Your task to perform on an android device: manage bookmarks in the chrome app Image 0: 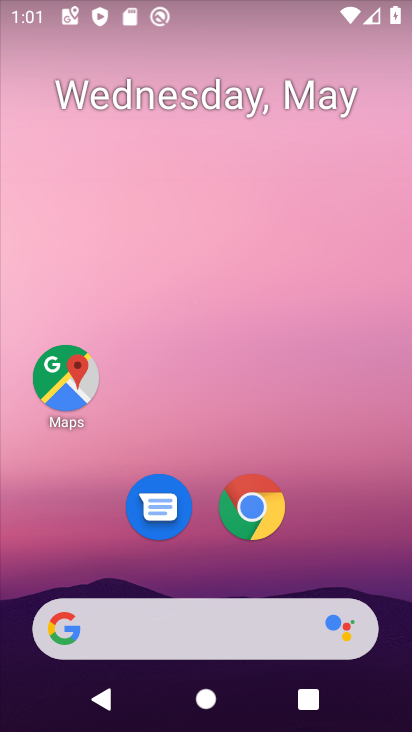
Step 0: click (252, 486)
Your task to perform on an android device: manage bookmarks in the chrome app Image 1: 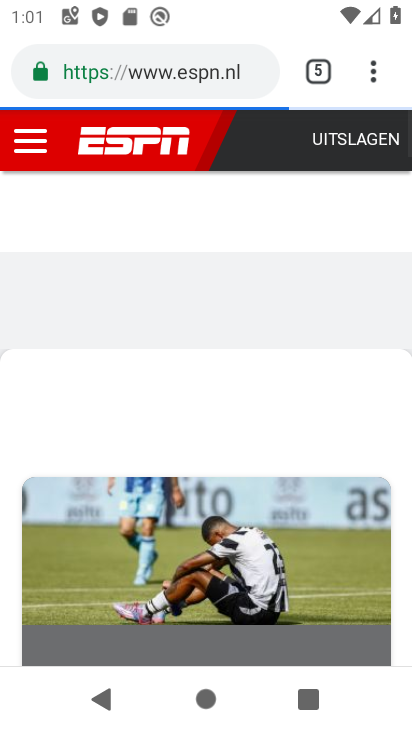
Step 1: click (367, 72)
Your task to perform on an android device: manage bookmarks in the chrome app Image 2: 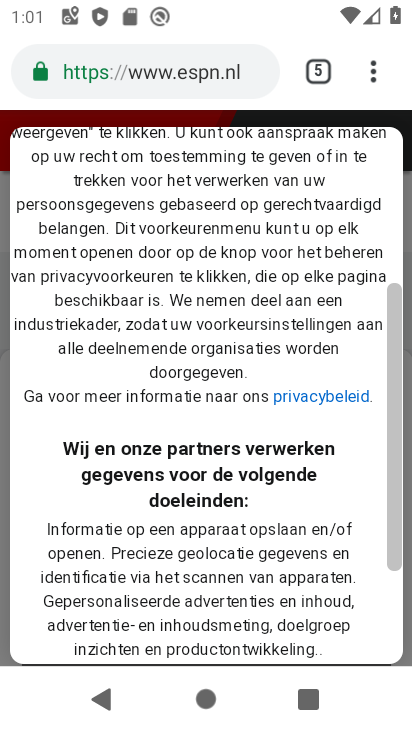
Step 2: click (368, 78)
Your task to perform on an android device: manage bookmarks in the chrome app Image 3: 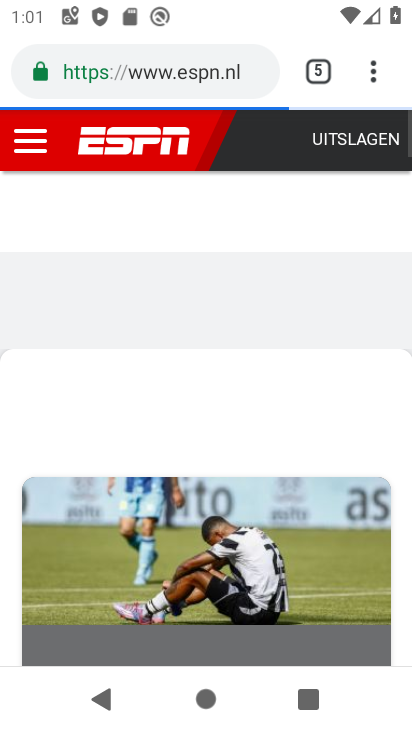
Step 3: click (365, 63)
Your task to perform on an android device: manage bookmarks in the chrome app Image 4: 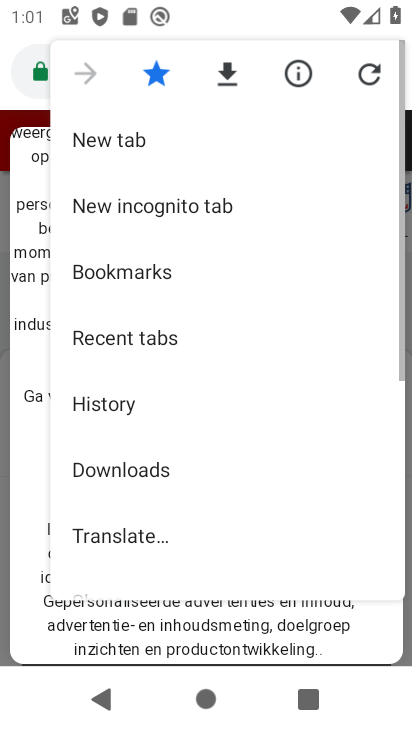
Step 4: drag from (229, 437) to (229, 312)
Your task to perform on an android device: manage bookmarks in the chrome app Image 5: 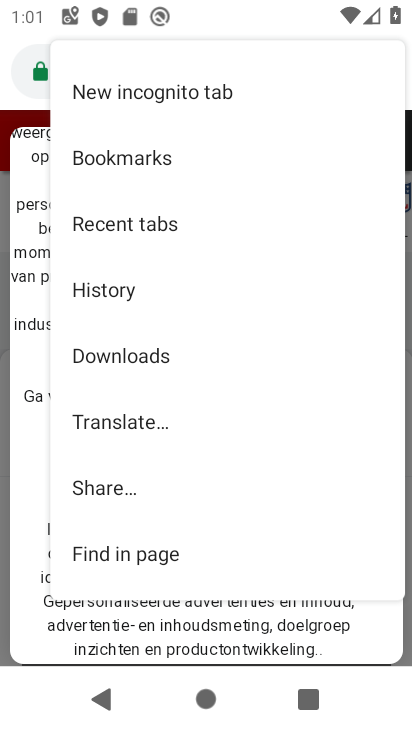
Step 5: click (143, 134)
Your task to perform on an android device: manage bookmarks in the chrome app Image 6: 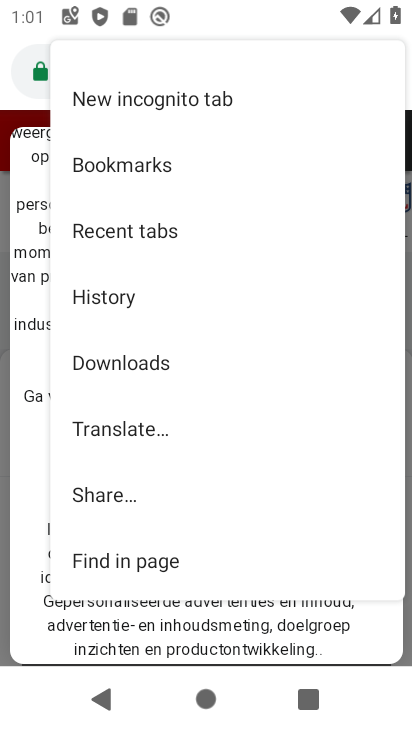
Step 6: click (139, 156)
Your task to perform on an android device: manage bookmarks in the chrome app Image 7: 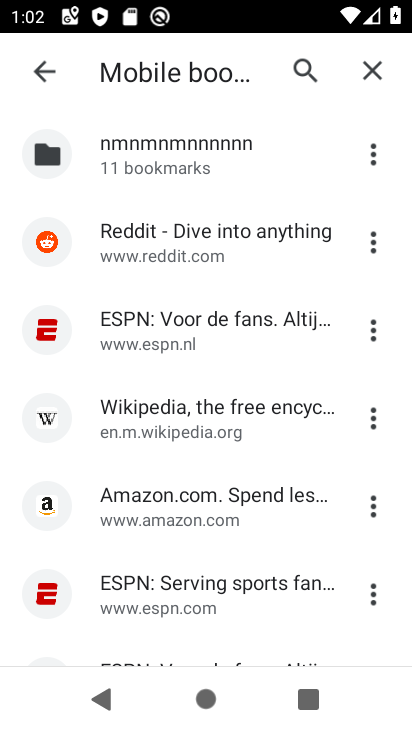
Step 7: click (182, 241)
Your task to perform on an android device: manage bookmarks in the chrome app Image 8: 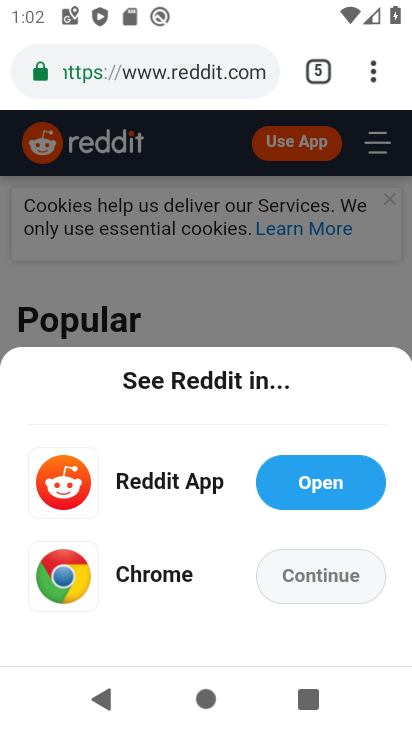
Step 8: click (363, 55)
Your task to perform on an android device: manage bookmarks in the chrome app Image 9: 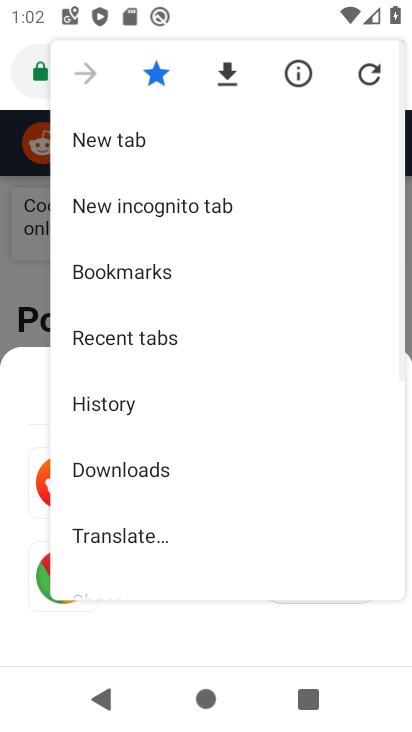
Step 9: click (150, 263)
Your task to perform on an android device: manage bookmarks in the chrome app Image 10: 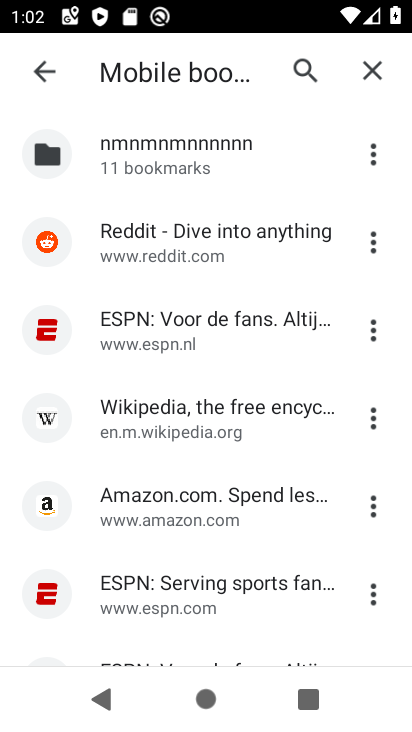
Step 10: click (187, 330)
Your task to perform on an android device: manage bookmarks in the chrome app Image 11: 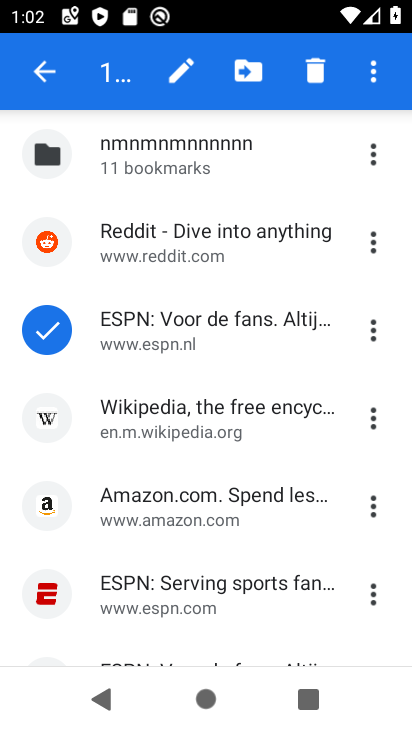
Step 11: click (251, 58)
Your task to perform on an android device: manage bookmarks in the chrome app Image 12: 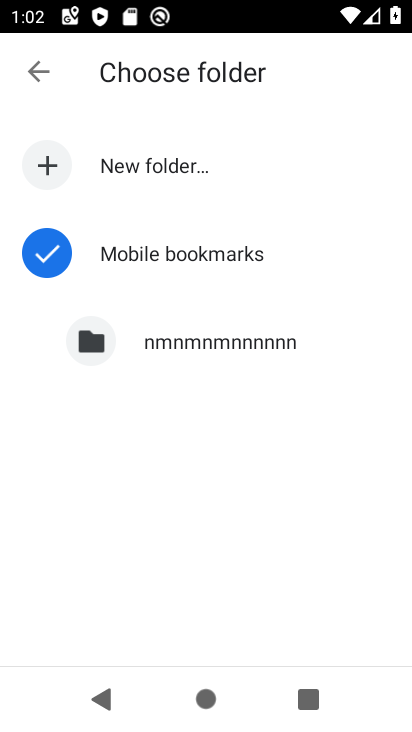
Step 12: click (177, 264)
Your task to perform on an android device: manage bookmarks in the chrome app Image 13: 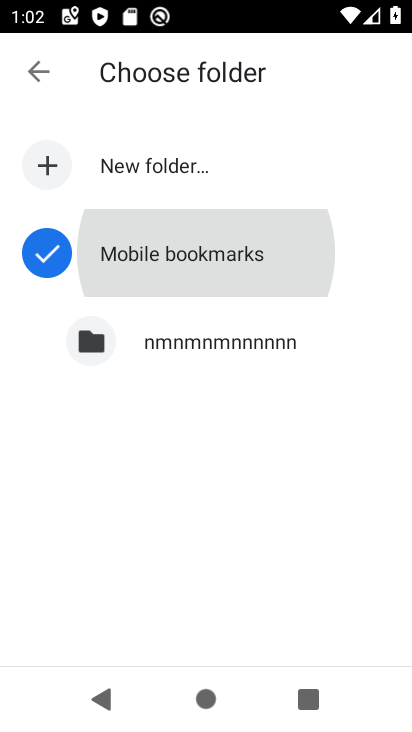
Step 13: click (205, 331)
Your task to perform on an android device: manage bookmarks in the chrome app Image 14: 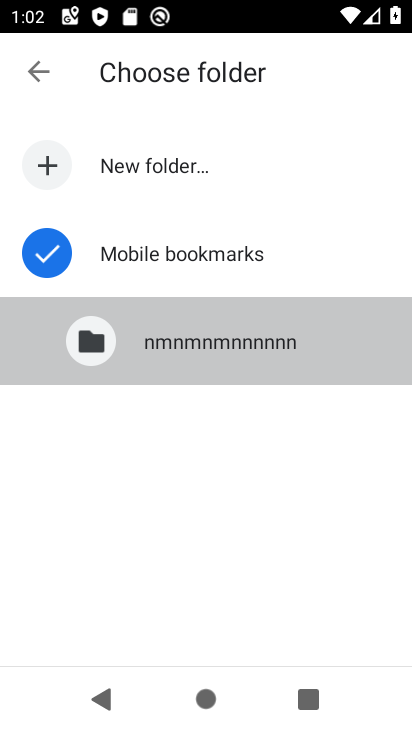
Step 14: click (211, 334)
Your task to perform on an android device: manage bookmarks in the chrome app Image 15: 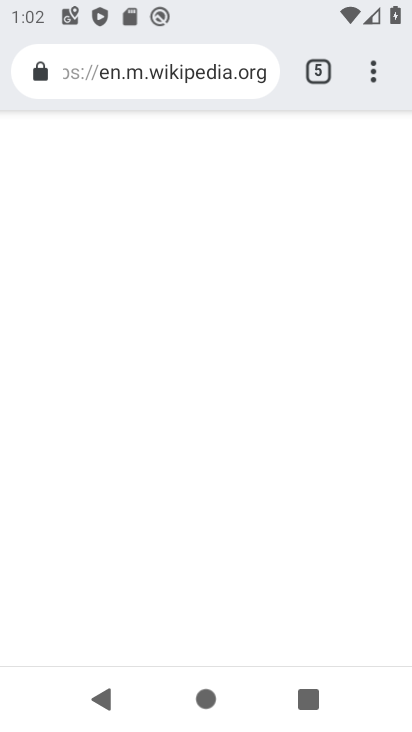
Step 15: task complete